Your task to perform on an android device: set an alarm Image 0: 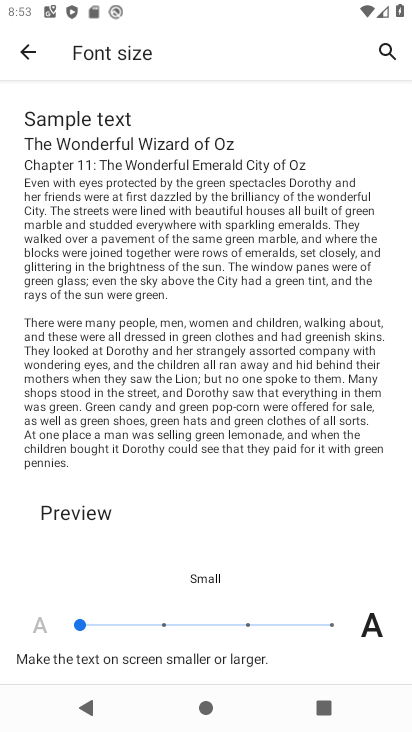
Step 0: press home button
Your task to perform on an android device: set an alarm Image 1: 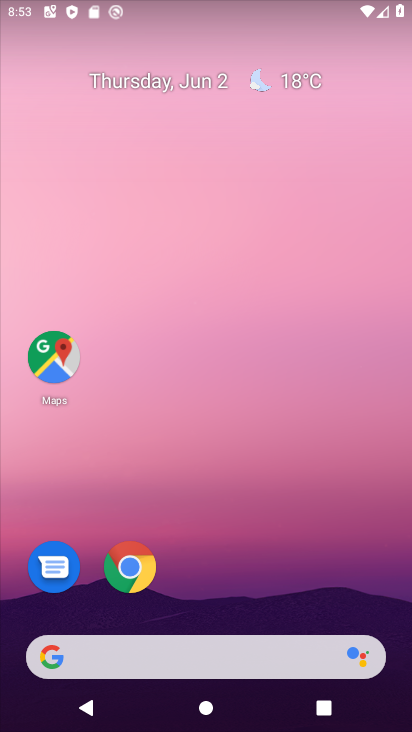
Step 1: drag from (213, 624) to (325, 81)
Your task to perform on an android device: set an alarm Image 2: 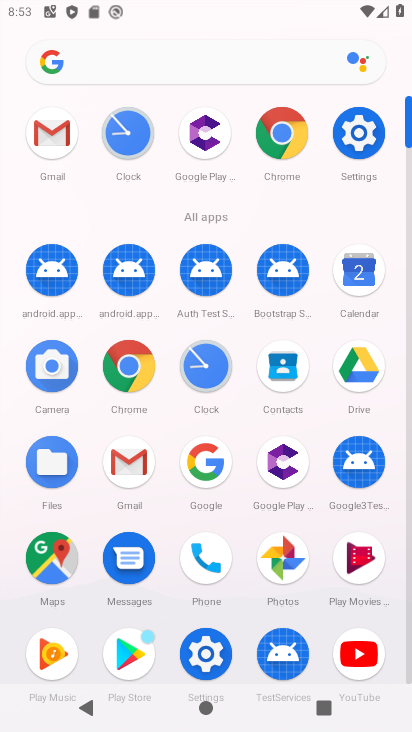
Step 2: click (206, 376)
Your task to perform on an android device: set an alarm Image 3: 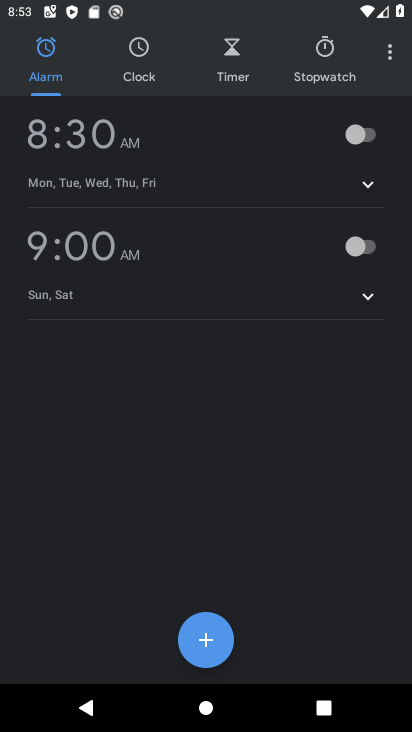
Step 3: click (109, 152)
Your task to perform on an android device: set an alarm Image 4: 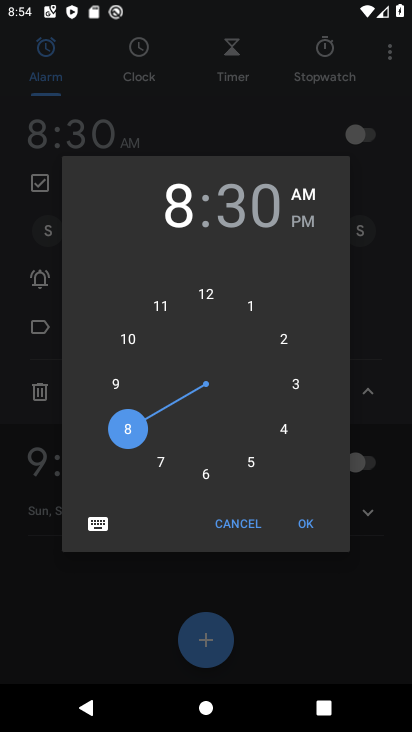
Step 4: click (129, 340)
Your task to perform on an android device: set an alarm Image 5: 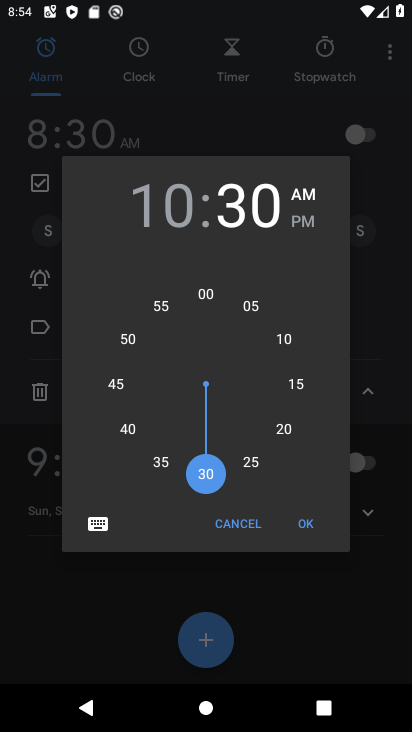
Step 5: click (147, 451)
Your task to perform on an android device: set an alarm Image 6: 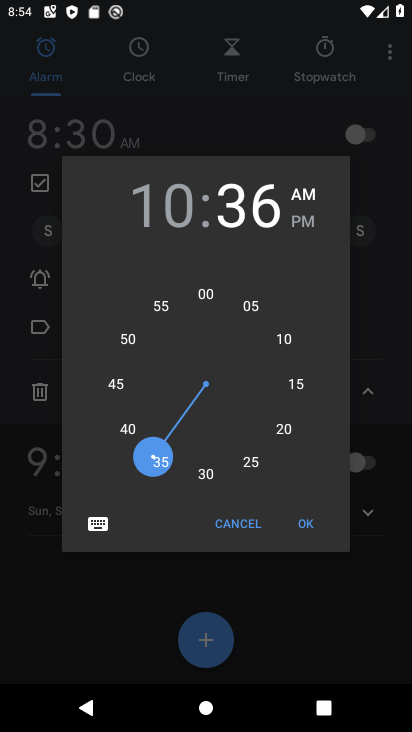
Step 6: click (307, 219)
Your task to perform on an android device: set an alarm Image 7: 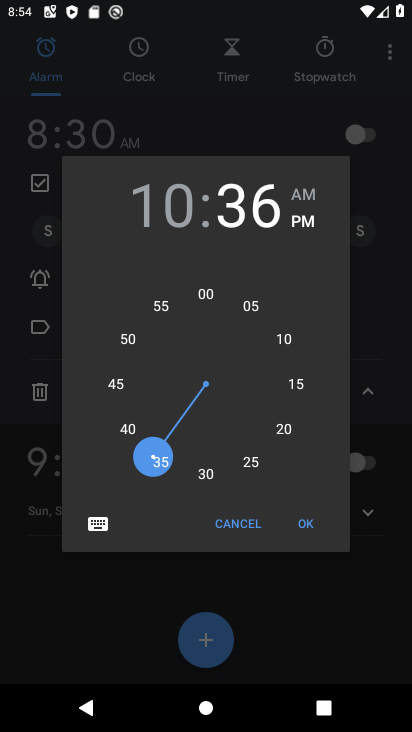
Step 7: click (306, 524)
Your task to perform on an android device: set an alarm Image 8: 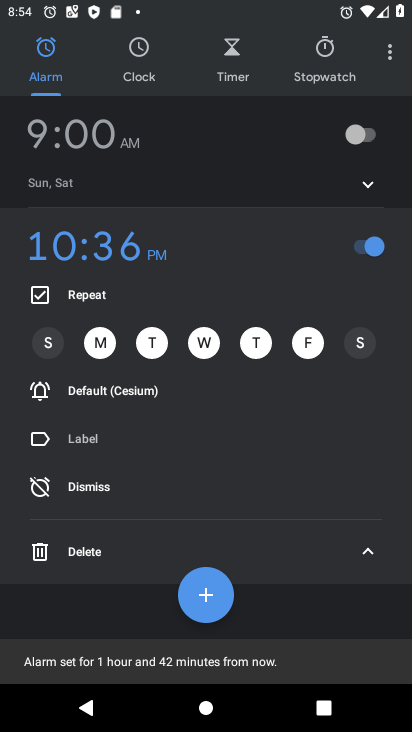
Step 8: click (367, 228)
Your task to perform on an android device: set an alarm Image 9: 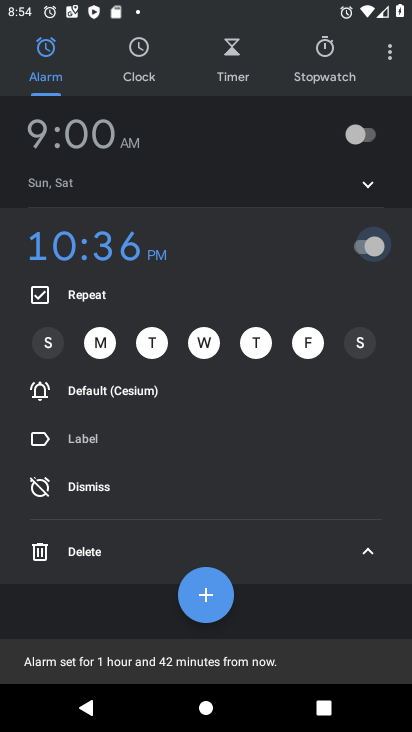
Step 9: click (314, 231)
Your task to perform on an android device: set an alarm Image 10: 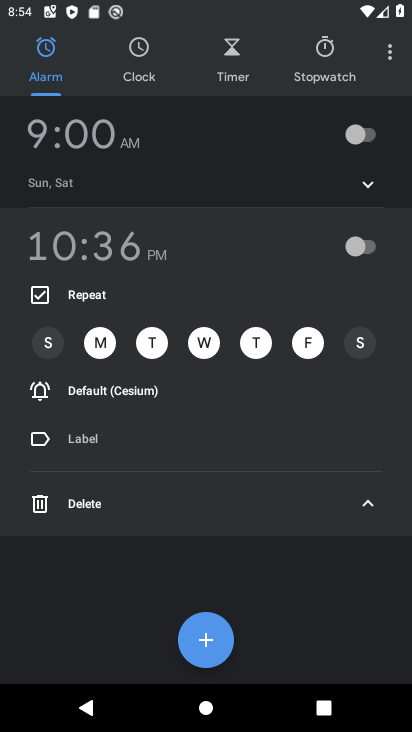
Step 10: click (254, 349)
Your task to perform on an android device: set an alarm Image 11: 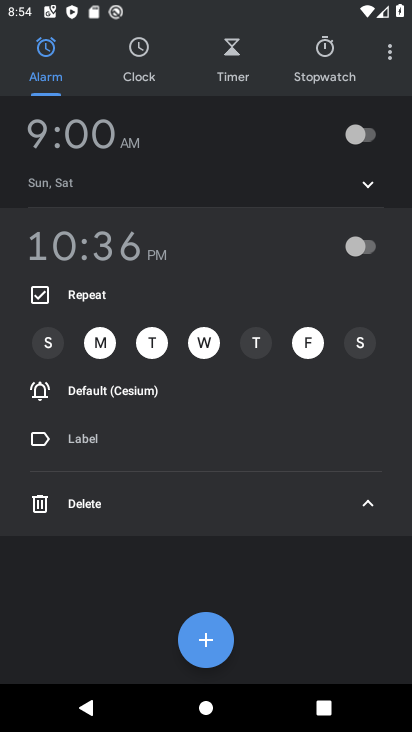
Step 11: click (195, 351)
Your task to perform on an android device: set an alarm Image 12: 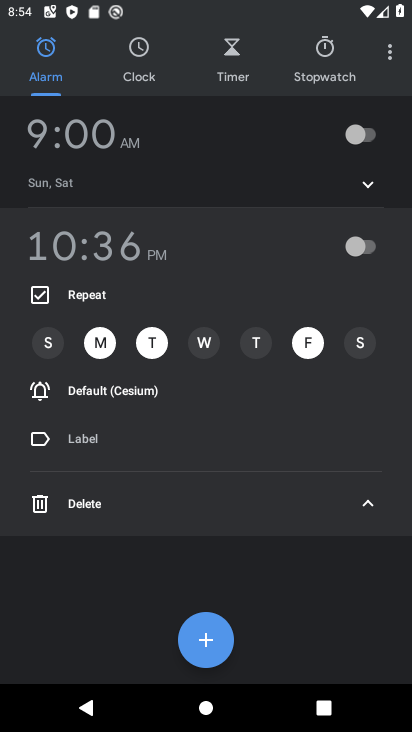
Step 12: click (376, 250)
Your task to perform on an android device: set an alarm Image 13: 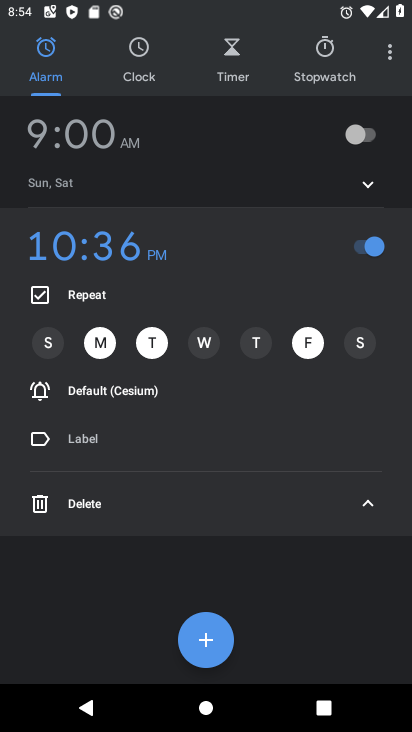
Step 13: task complete